Your task to perform on an android device: find snoozed emails in the gmail app Image 0: 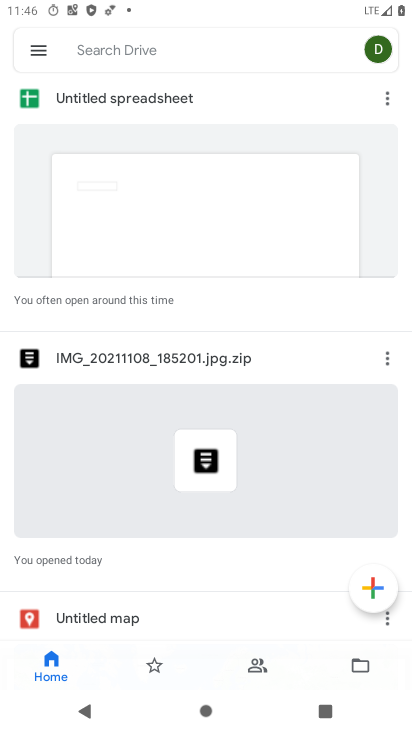
Step 0: press home button
Your task to perform on an android device: find snoozed emails in the gmail app Image 1: 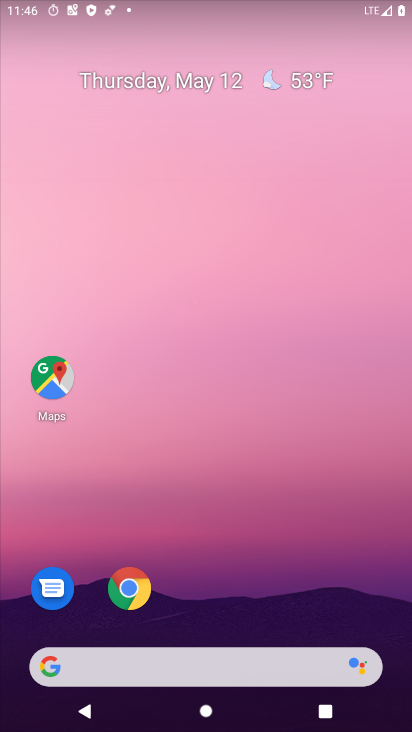
Step 1: drag from (298, 599) to (266, 163)
Your task to perform on an android device: find snoozed emails in the gmail app Image 2: 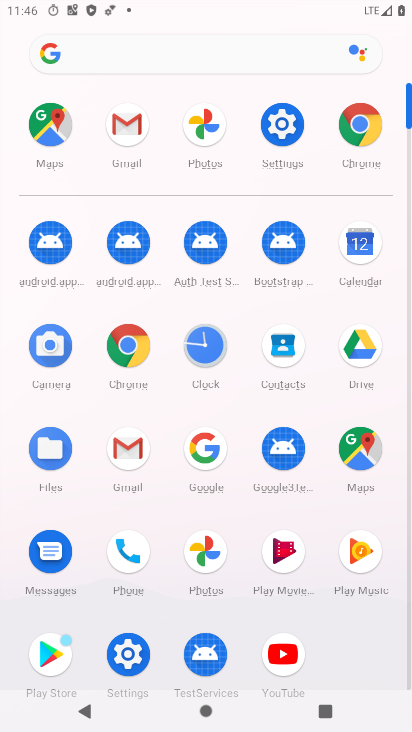
Step 2: click (121, 446)
Your task to perform on an android device: find snoozed emails in the gmail app Image 3: 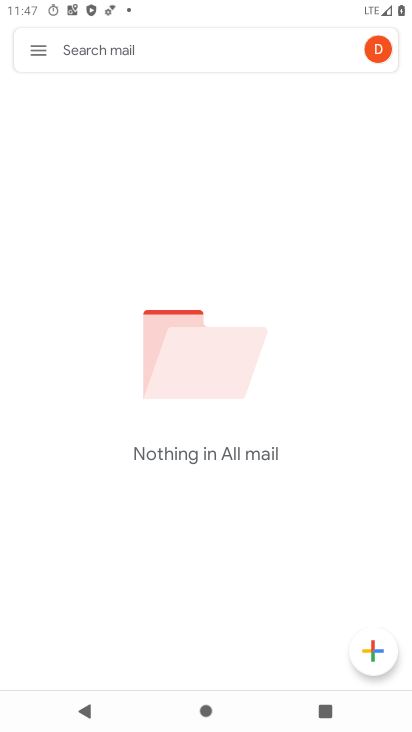
Step 3: click (34, 29)
Your task to perform on an android device: find snoozed emails in the gmail app Image 4: 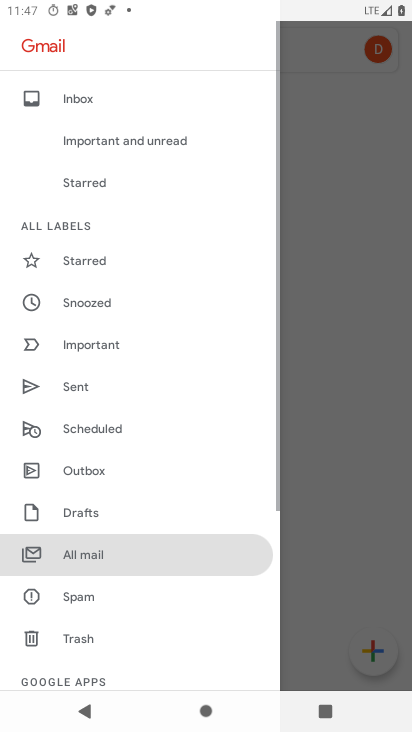
Step 4: drag from (145, 420) to (201, 277)
Your task to perform on an android device: find snoozed emails in the gmail app Image 5: 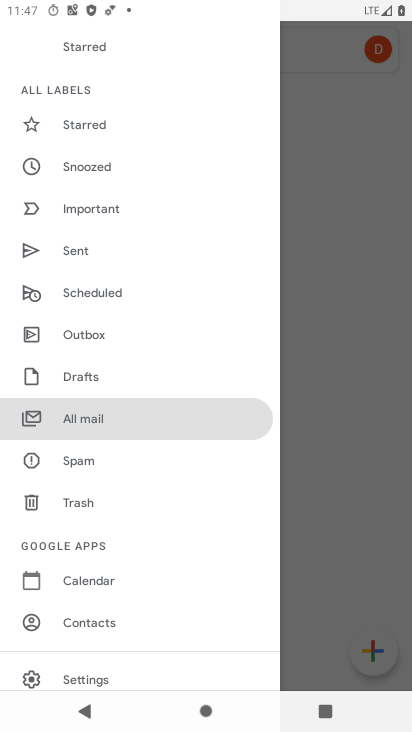
Step 5: click (107, 169)
Your task to perform on an android device: find snoozed emails in the gmail app Image 6: 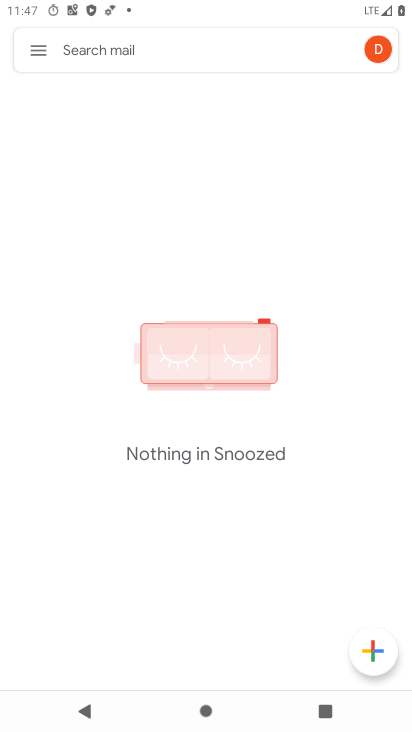
Step 6: task complete